Your task to perform on an android device: turn on wifi Image 0: 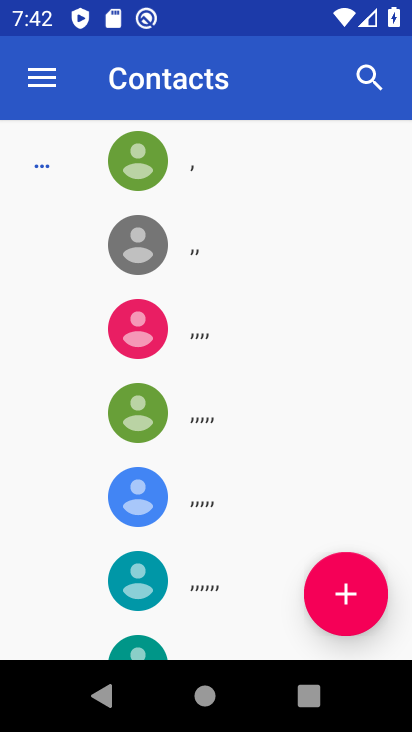
Step 0: press home button
Your task to perform on an android device: turn on wifi Image 1: 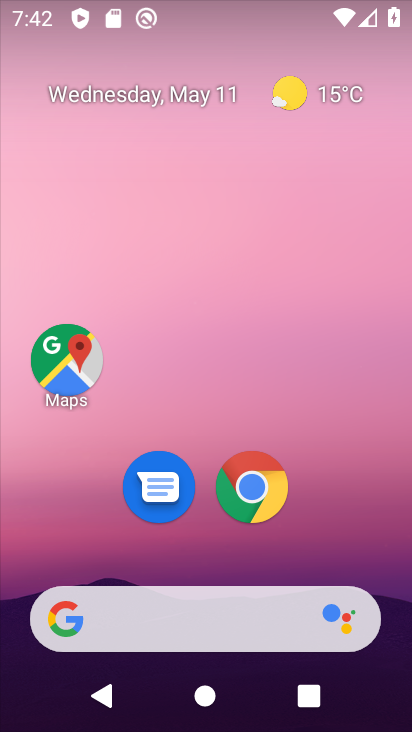
Step 1: drag from (272, 624) to (164, 256)
Your task to perform on an android device: turn on wifi Image 2: 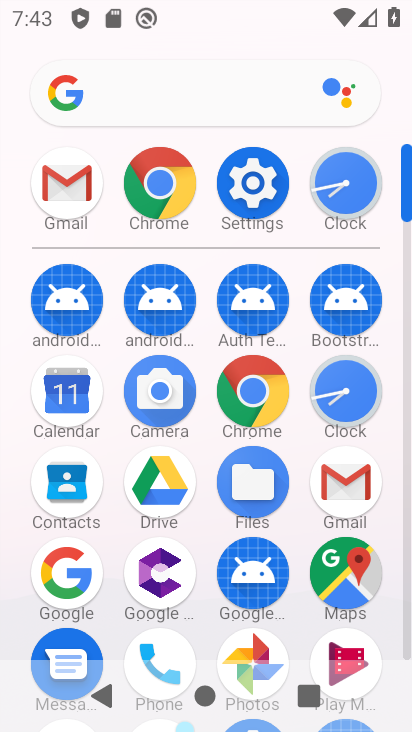
Step 2: click (262, 178)
Your task to perform on an android device: turn on wifi Image 3: 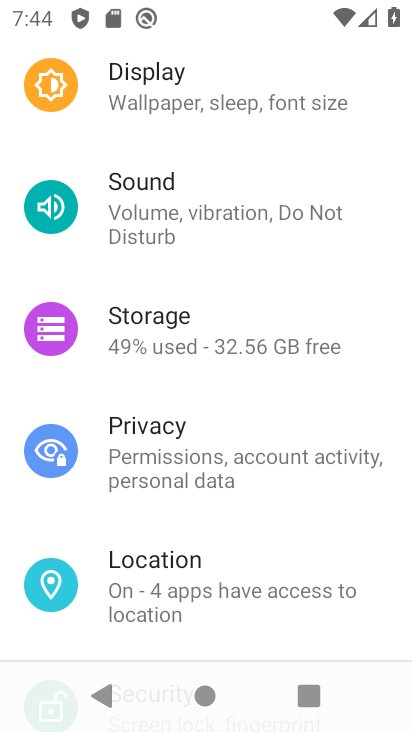
Step 3: drag from (162, 142) to (191, 607)
Your task to perform on an android device: turn on wifi Image 4: 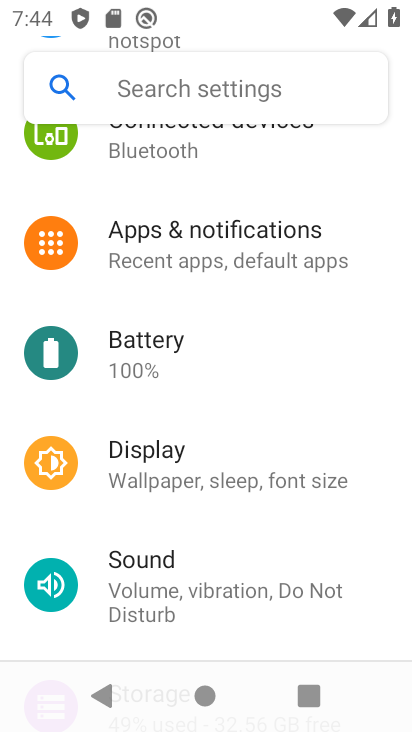
Step 4: drag from (190, 159) to (240, 372)
Your task to perform on an android device: turn on wifi Image 5: 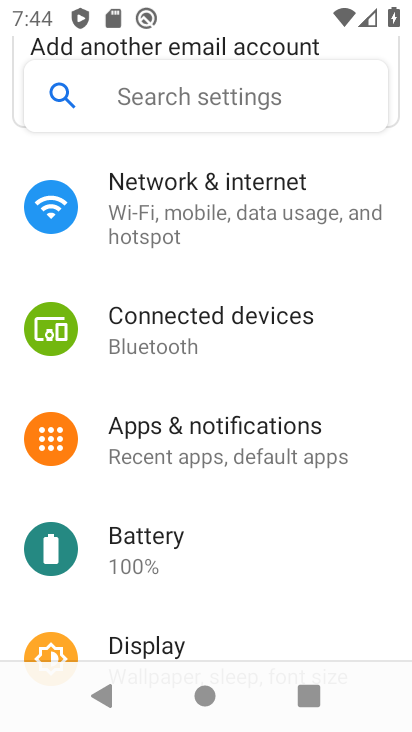
Step 5: click (186, 233)
Your task to perform on an android device: turn on wifi Image 6: 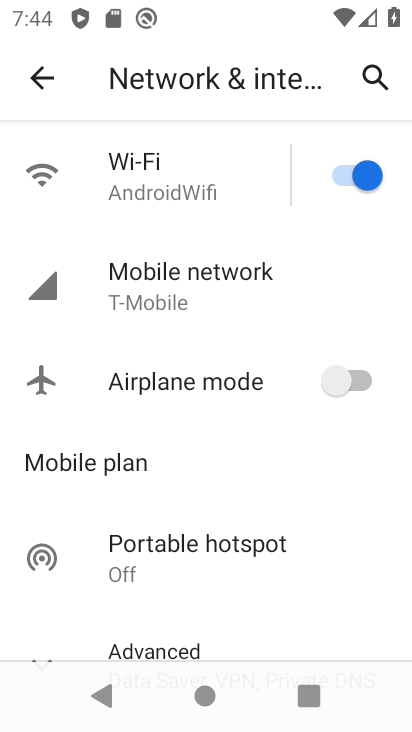
Step 6: click (187, 188)
Your task to perform on an android device: turn on wifi Image 7: 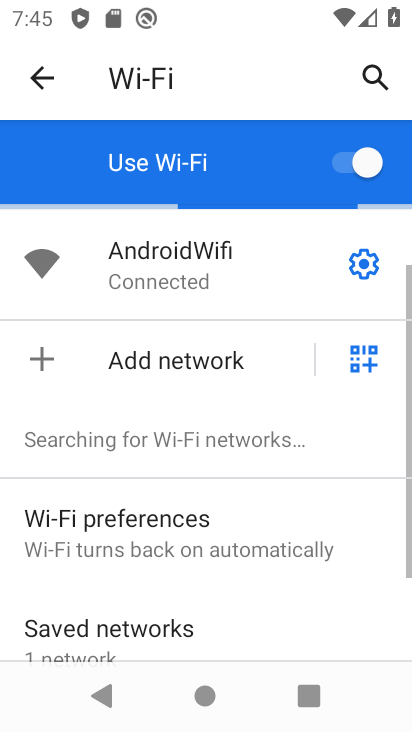
Step 7: click (340, 176)
Your task to perform on an android device: turn on wifi Image 8: 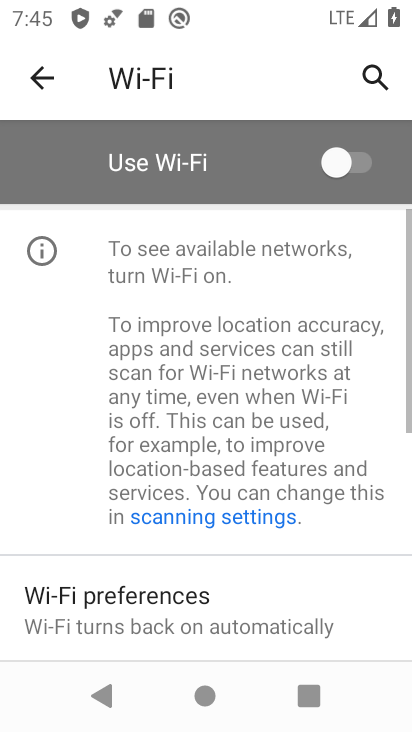
Step 8: click (338, 169)
Your task to perform on an android device: turn on wifi Image 9: 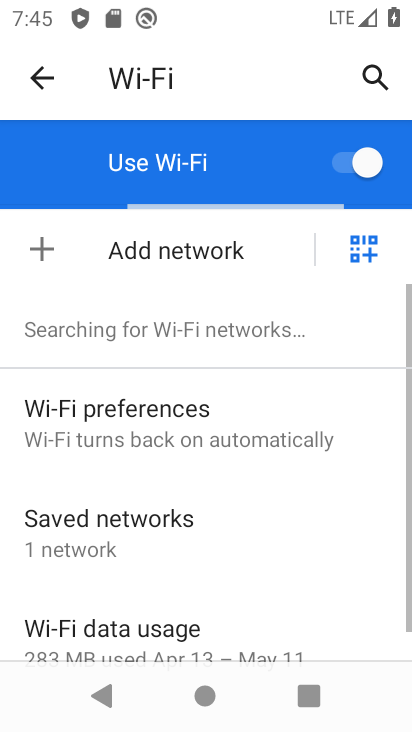
Step 9: task complete